Your task to perform on an android device: Go to display settings Image 0: 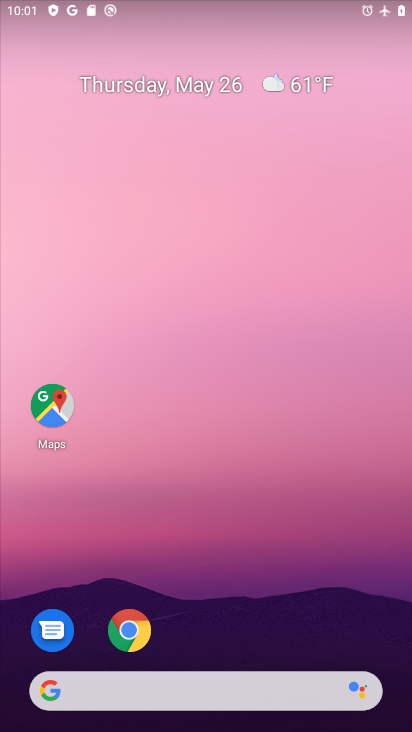
Step 0: drag from (216, 665) to (178, 198)
Your task to perform on an android device: Go to display settings Image 1: 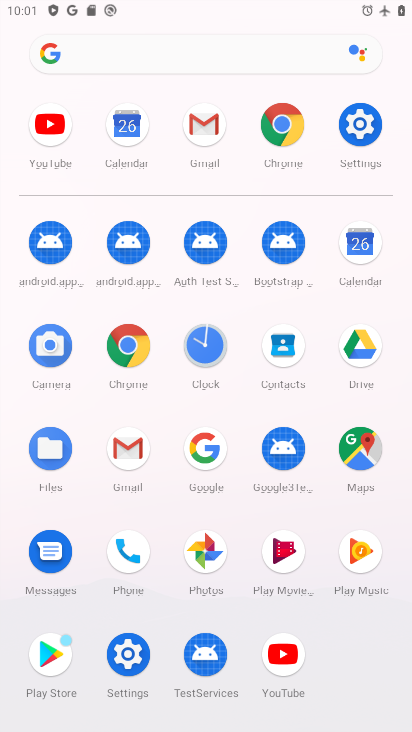
Step 1: click (357, 123)
Your task to perform on an android device: Go to display settings Image 2: 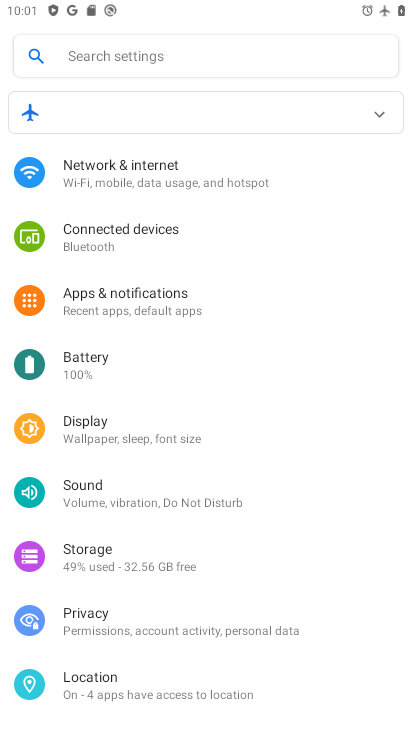
Step 2: click (125, 455)
Your task to perform on an android device: Go to display settings Image 3: 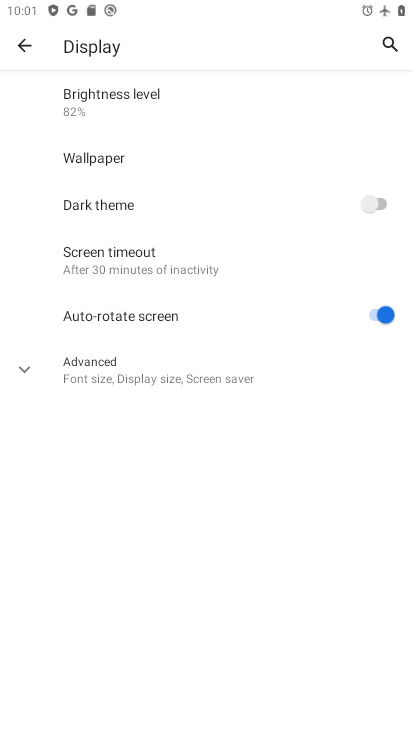
Step 3: click (105, 378)
Your task to perform on an android device: Go to display settings Image 4: 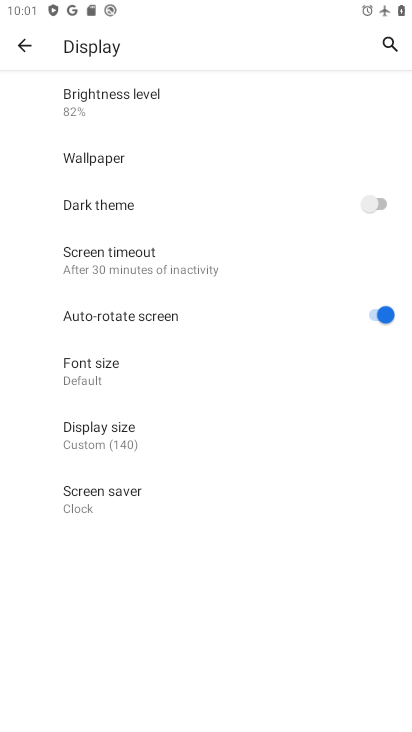
Step 4: task complete